Your task to perform on an android device: What is the recent news? Image 0: 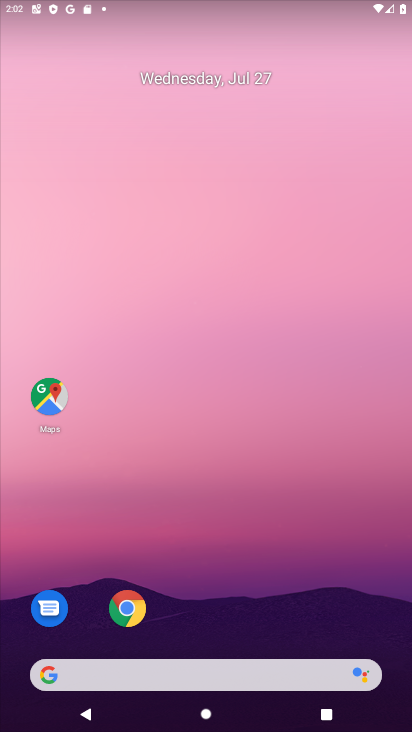
Step 0: click (171, 666)
Your task to perform on an android device: What is the recent news? Image 1: 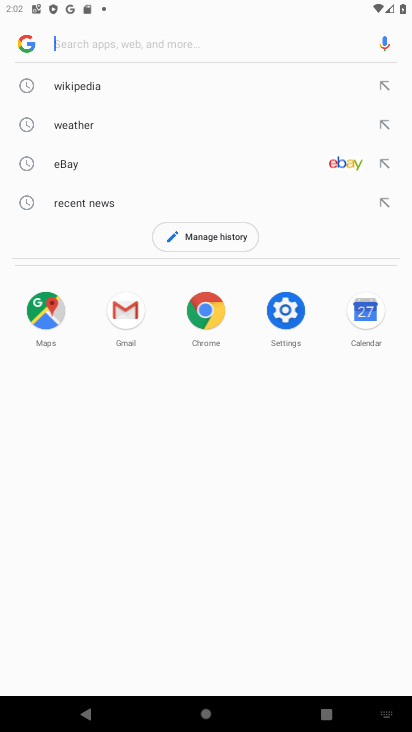
Step 1: type "What is the recent news?"
Your task to perform on an android device: What is the recent news? Image 2: 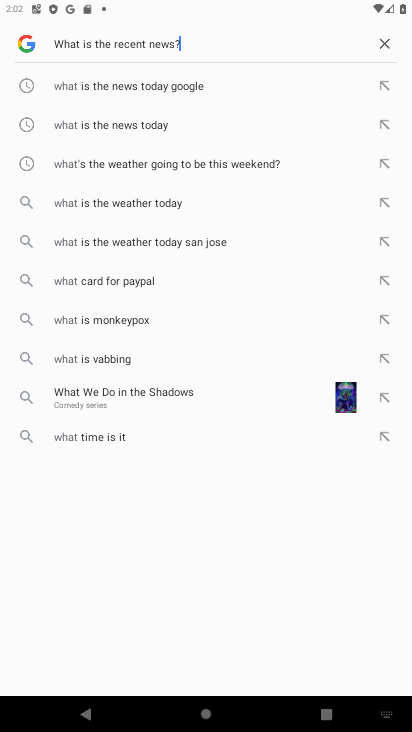
Step 2: type ""
Your task to perform on an android device: What is the recent news? Image 3: 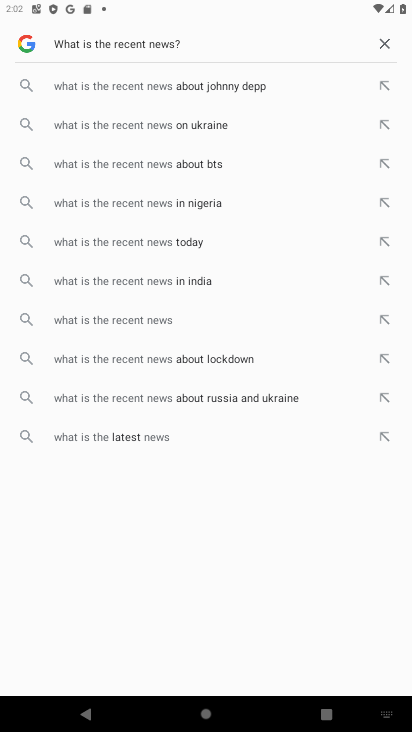
Step 3: type ""
Your task to perform on an android device: What is the recent news? Image 4: 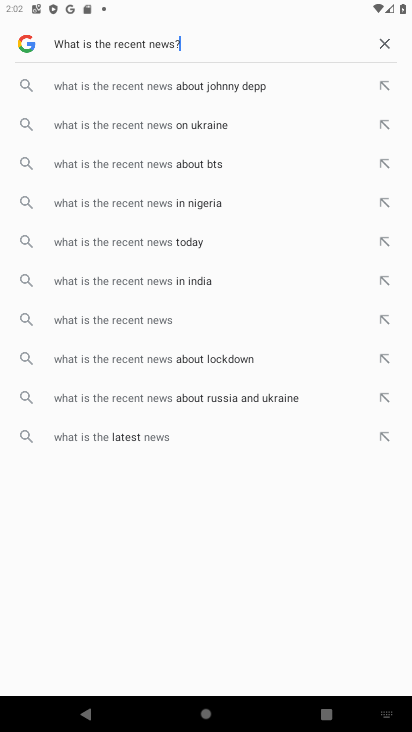
Step 4: type ""
Your task to perform on an android device: What is the recent news? Image 5: 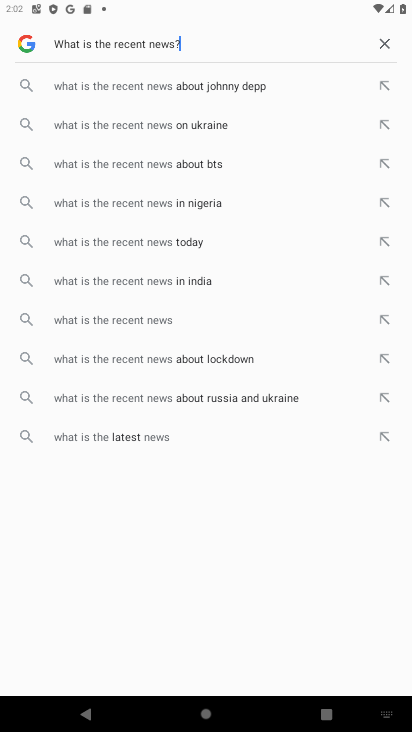
Step 5: type ""
Your task to perform on an android device: What is the recent news? Image 6: 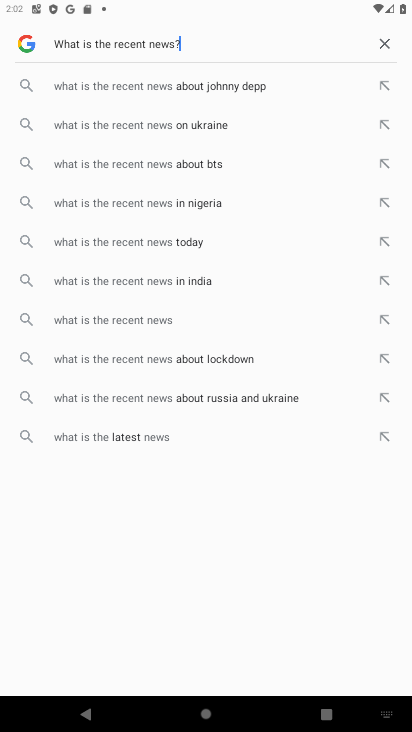
Step 6: task complete